Your task to perform on an android device: read, delete, or share a saved page in the chrome app Image 0: 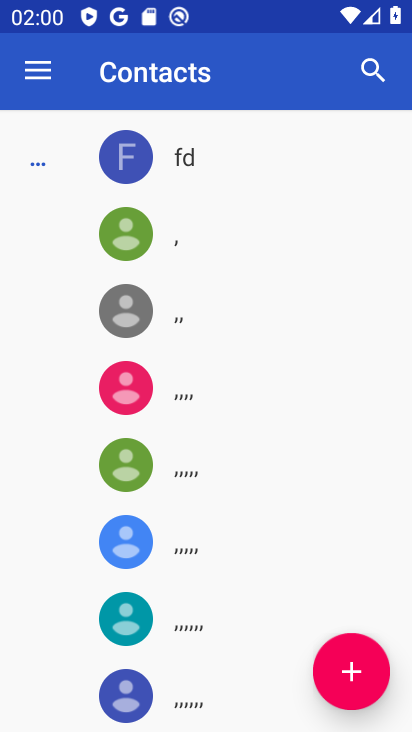
Step 0: press home button
Your task to perform on an android device: read, delete, or share a saved page in the chrome app Image 1: 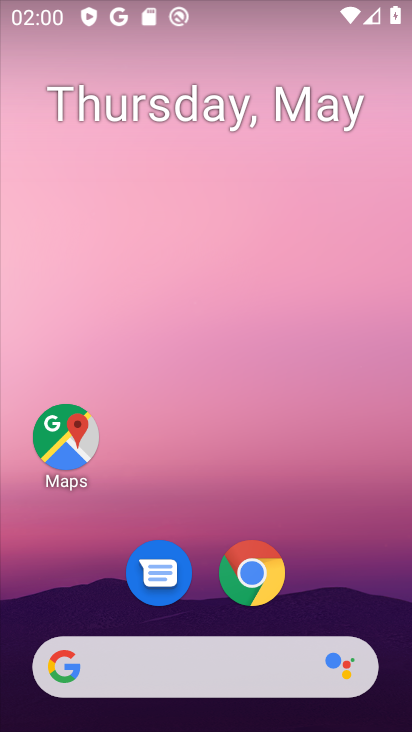
Step 1: click (252, 548)
Your task to perform on an android device: read, delete, or share a saved page in the chrome app Image 2: 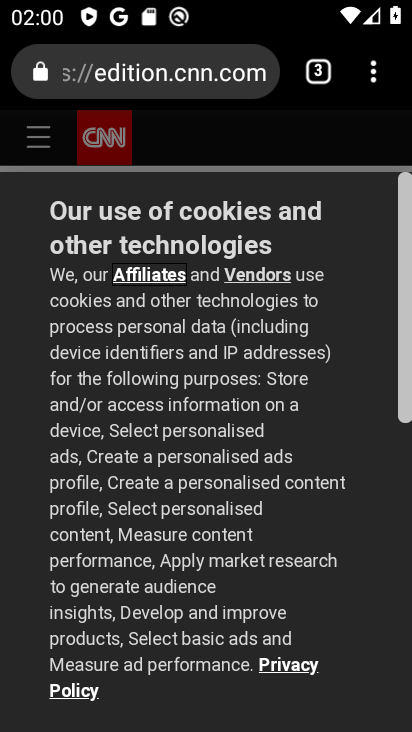
Step 2: click (370, 77)
Your task to perform on an android device: read, delete, or share a saved page in the chrome app Image 3: 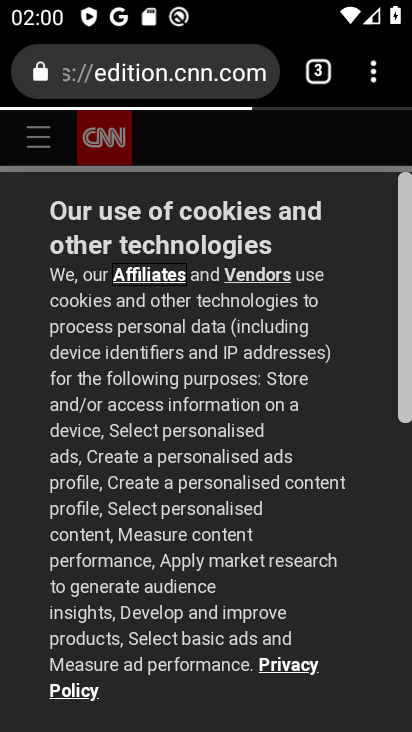
Step 3: click (386, 73)
Your task to perform on an android device: read, delete, or share a saved page in the chrome app Image 4: 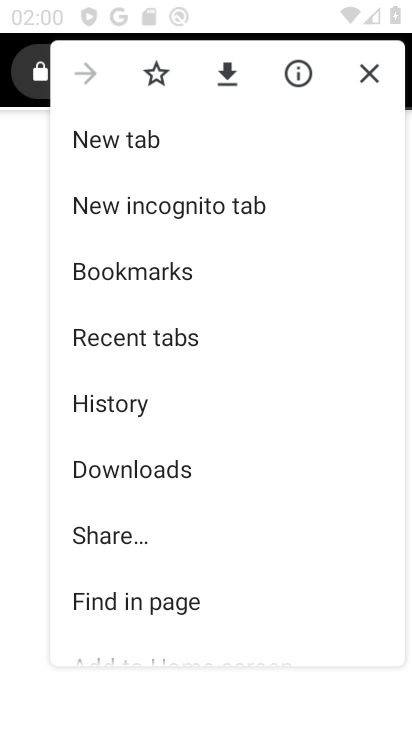
Step 4: click (136, 487)
Your task to perform on an android device: read, delete, or share a saved page in the chrome app Image 5: 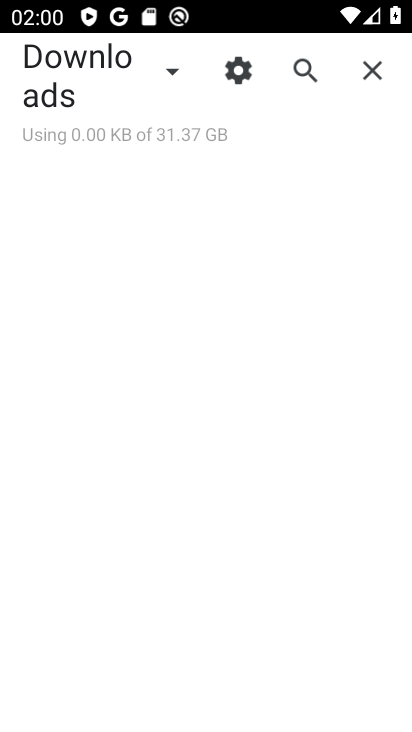
Step 5: click (171, 66)
Your task to perform on an android device: read, delete, or share a saved page in the chrome app Image 6: 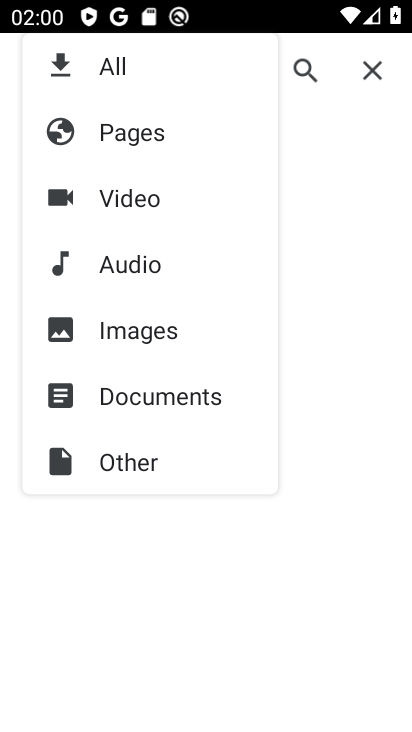
Step 6: click (150, 120)
Your task to perform on an android device: read, delete, or share a saved page in the chrome app Image 7: 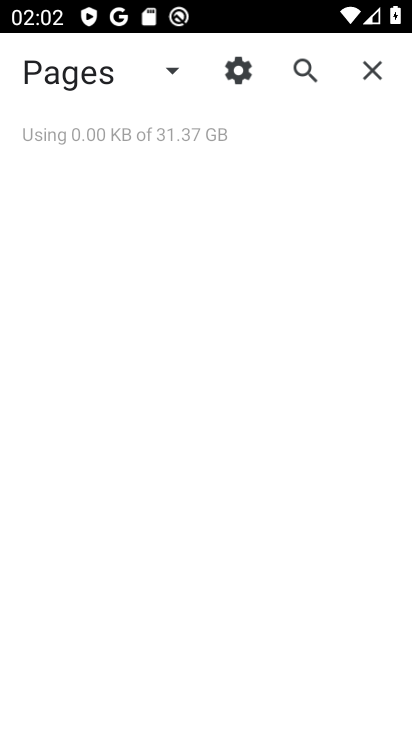
Step 7: task complete